Your task to perform on an android device: read, delete, or share a saved page in the chrome app Image 0: 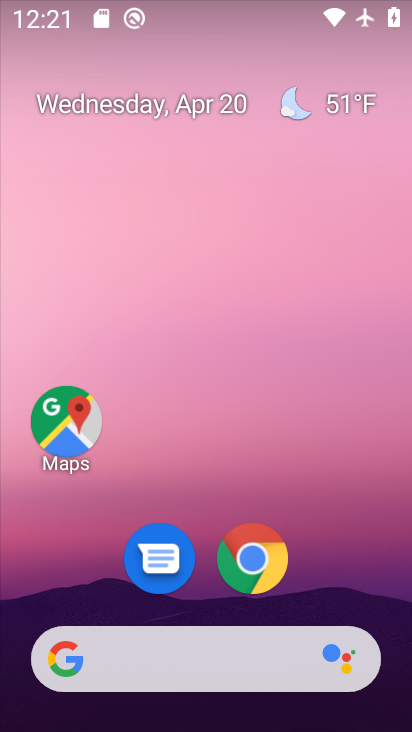
Step 0: click (251, 558)
Your task to perform on an android device: read, delete, or share a saved page in the chrome app Image 1: 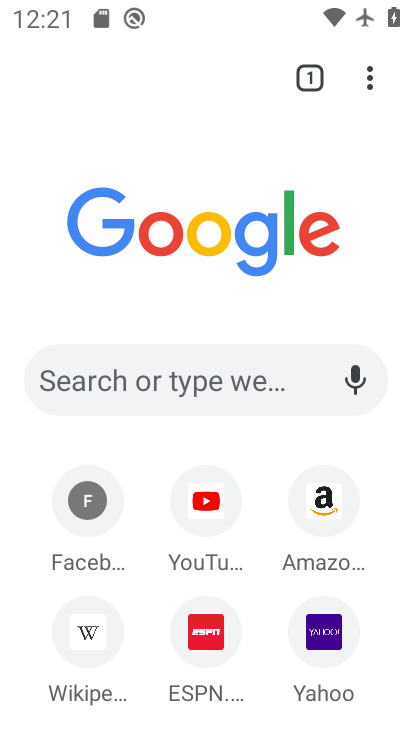
Step 1: click (371, 86)
Your task to perform on an android device: read, delete, or share a saved page in the chrome app Image 2: 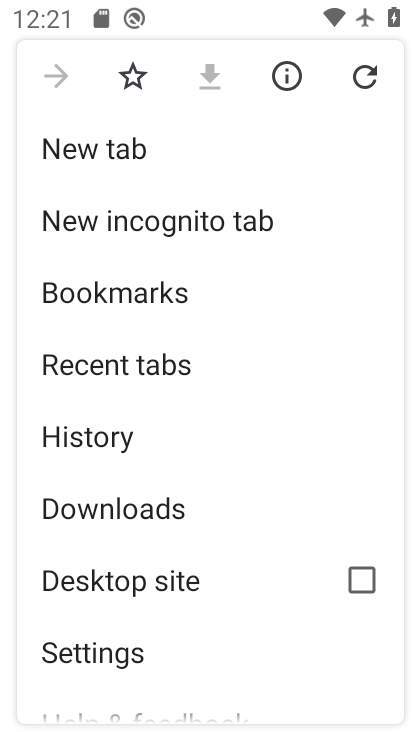
Step 2: click (109, 512)
Your task to perform on an android device: read, delete, or share a saved page in the chrome app Image 3: 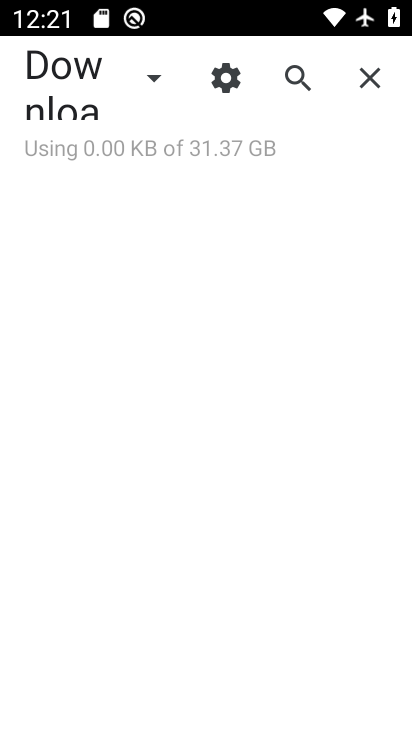
Step 3: click (152, 77)
Your task to perform on an android device: read, delete, or share a saved page in the chrome app Image 4: 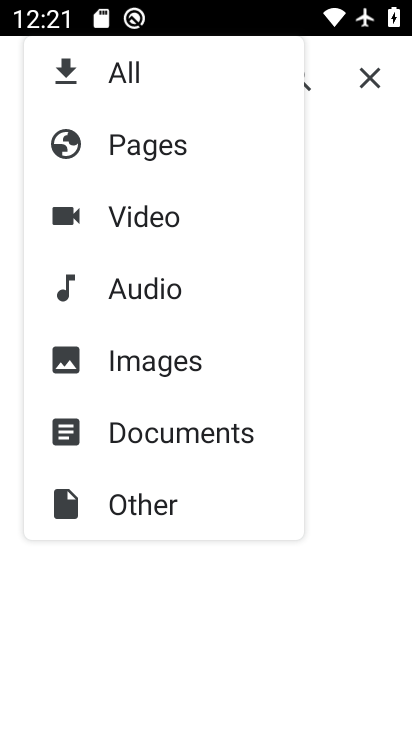
Step 4: click (143, 139)
Your task to perform on an android device: read, delete, or share a saved page in the chrome app Image 5: 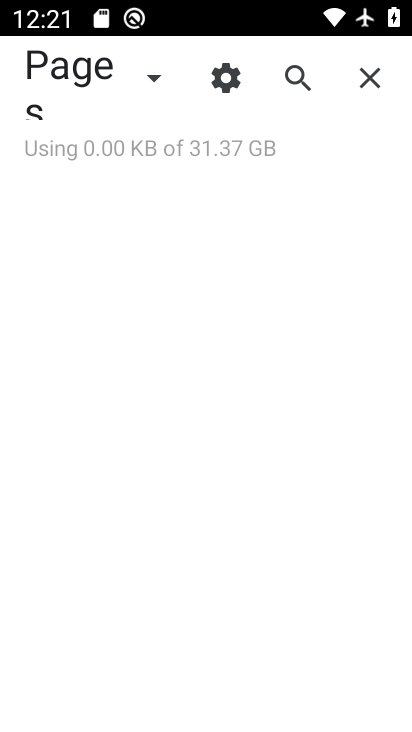
Step 5: task complete